Your task to perform on an android device: Open the web browser Image 0: 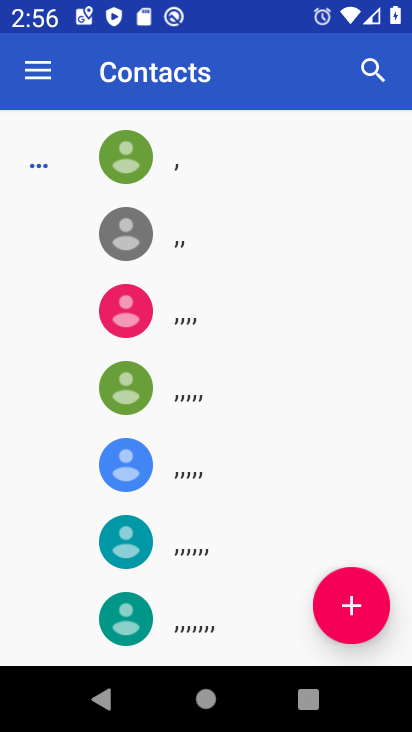
Step 0: press home button
Your task to perform on an android device: Open the web browser Image 1: 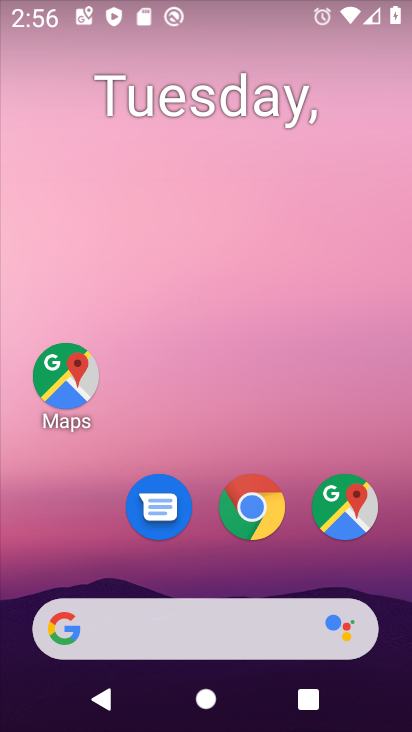
Step 1: click (247, 499)
Your task to perform on an android device: Open the web browser Image 2: 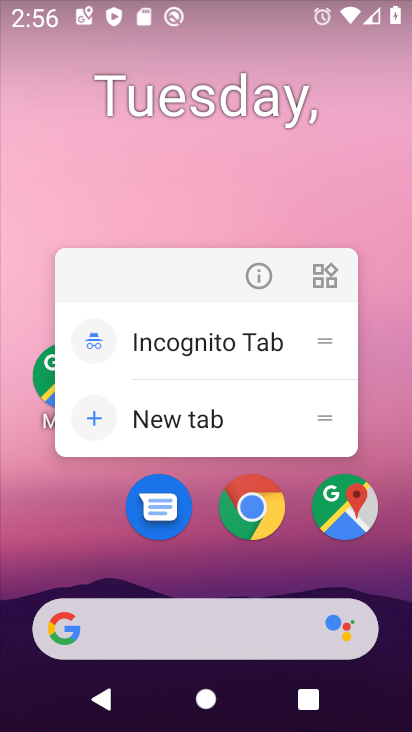
Step 2: click (249, 499)
Your task to perform on an android device: Open the web browser Image 3: 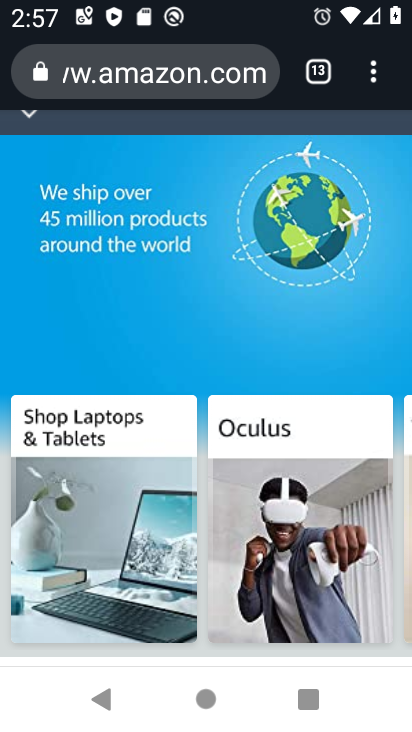
Step 3: task complete